Your task to perform on an android device: Open Android settings Image 0: 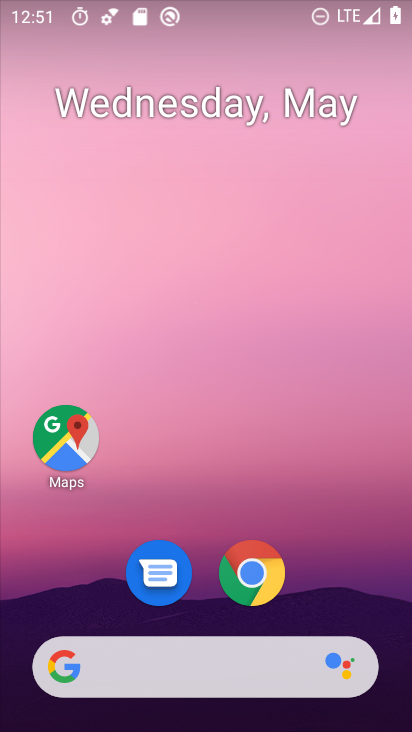
Step 0: drag from (300, 549) to (312, 6)
Your task to perform on an android device: Open Android settings Image 1: 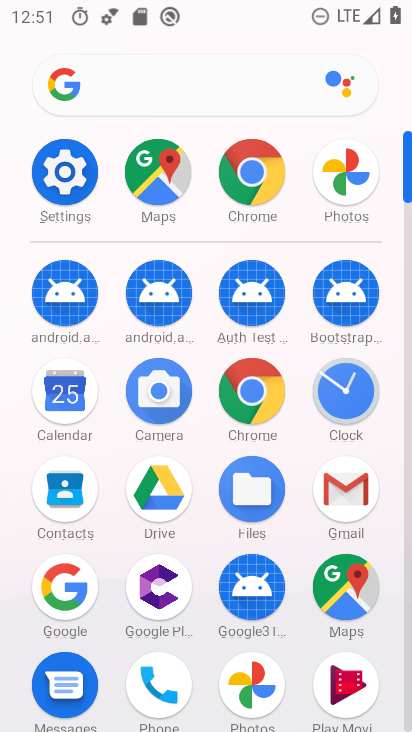
Step 1: drag from (13, 579) to (25, 229)
Your task to perform on an android device: Open Android settings Image 2: 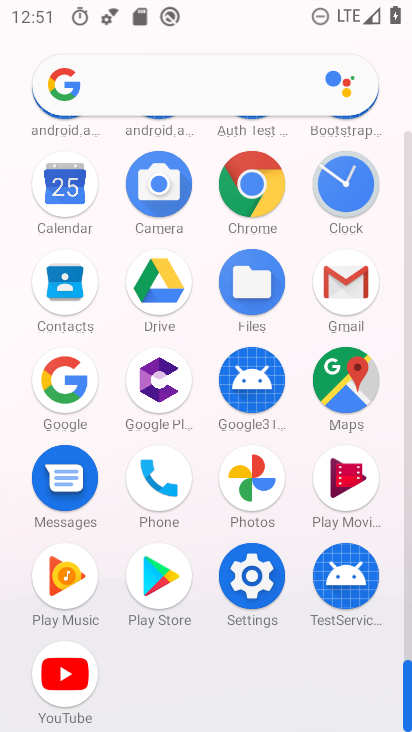
Step 2: click (257, 579)
Your task to perform on an android device: Open Android settings Image 3: 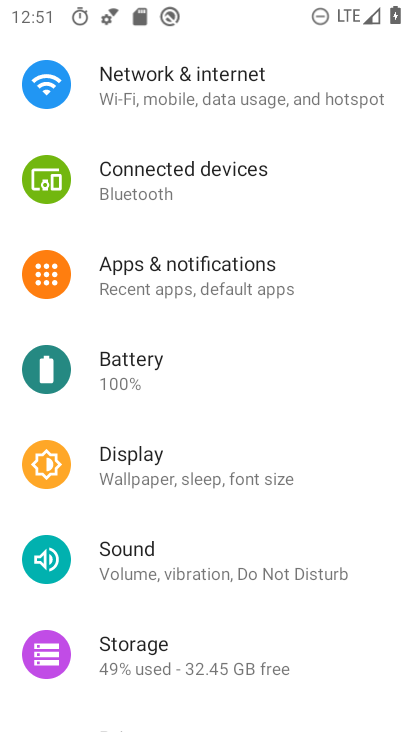
Step 3: task complete